Your task to perform on an android device: make emails show in primary in the gmail app Image 0: 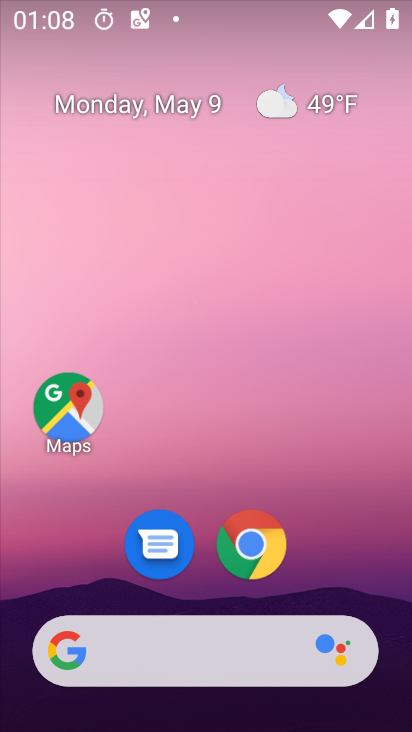
Step 0: drag from (314, 632) to (268, 2)
Your task to perform on an android device: make emails show in primary in the gmail app Image 1: 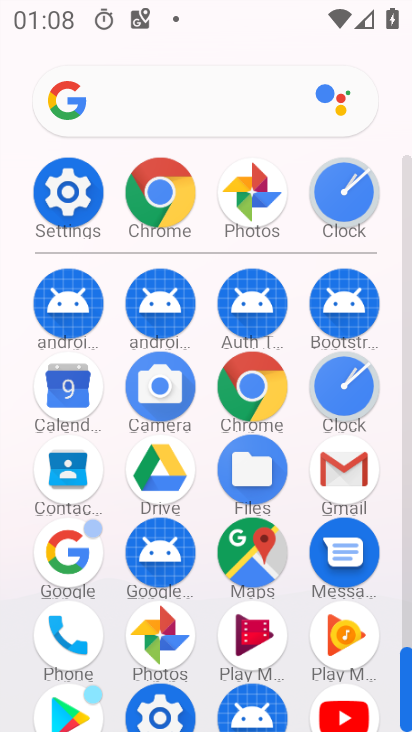
Step 1: click (352, 474)
Your task to perform on an android device: make emails show in primary in the gmail app Image 2: 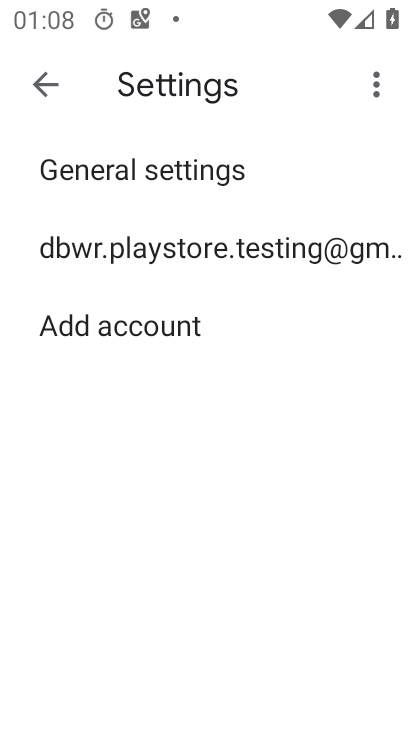
Step 2: press home button
Your task to perform on an android device: make emails show in primary in the gmail app Image 3: 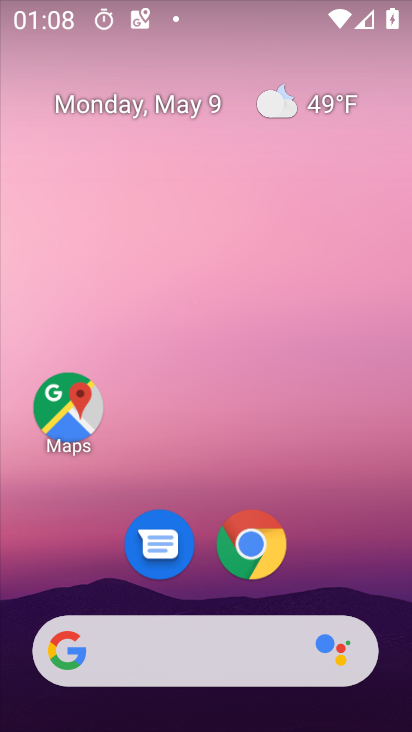
Step 3: drag from (317, 610) to (407, 17)
Your task to perform on an android device: make emails show in primary in the gmail app Image 4: 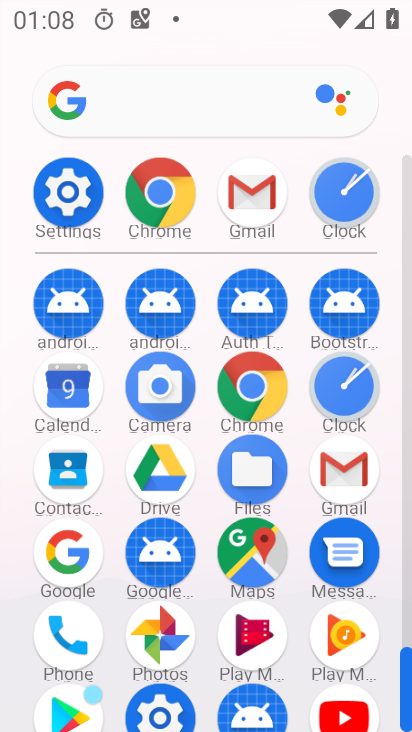
Step 4: click (332, 477)
Your task to perform on an android device: make emails show in primary in the gmail app Image 5: 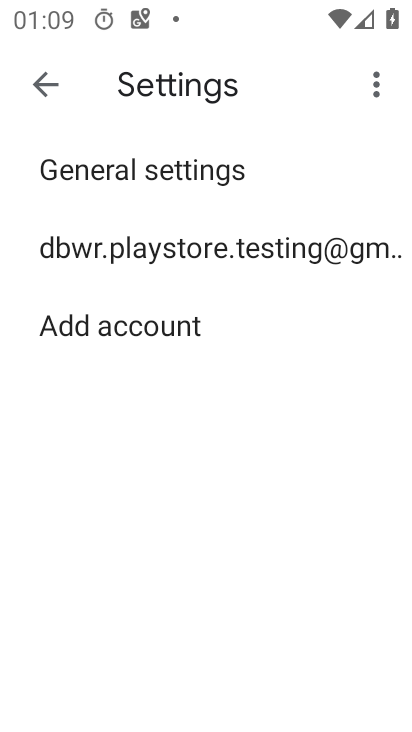
Step 5: click (155, 243)
Your task to perform on an android device: make emails show in primary in the gmail app Image 6: 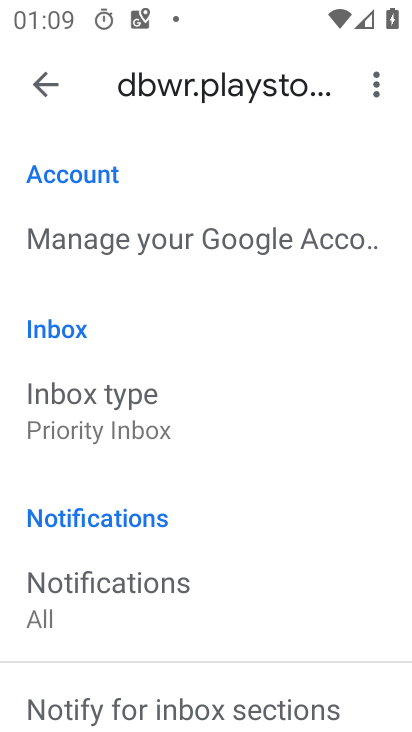
Step 6: click (94, 403)
Your task to perform on an android device: make emails show in primary in the gmail app Image 7: 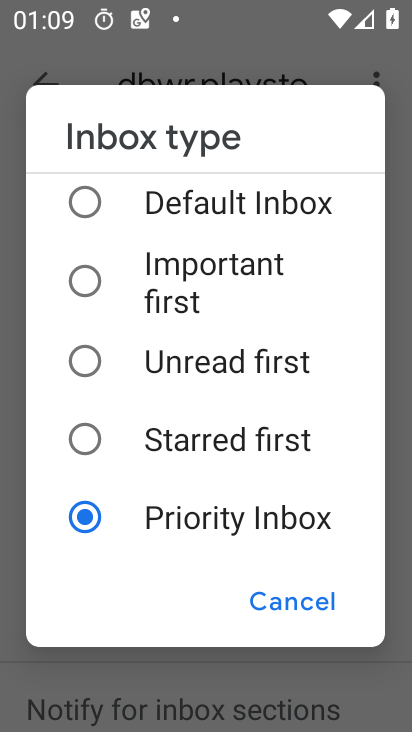
Step 7: click (87, 204)
Your task to perform on an android device: make emails show in primary in the gmail app Image 8: 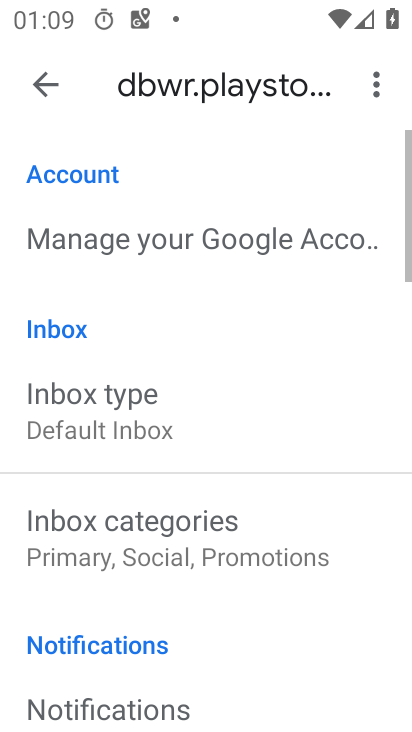
Step 8: task complete